Your task to perform on an android device: turn on airplane mode Image 0: 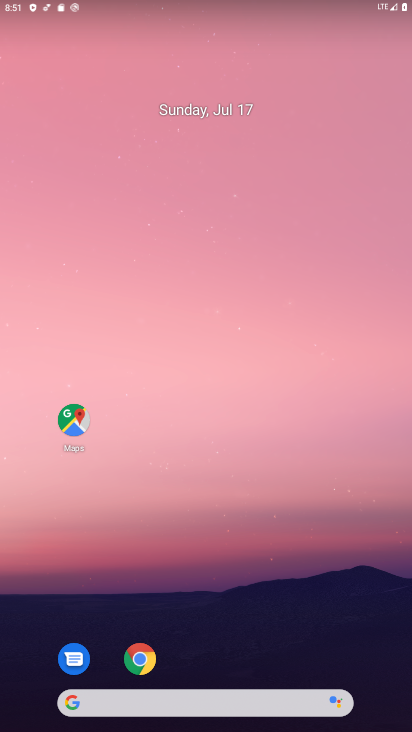
Step 0: drag from (175, 697) to (197, 303)
Your task to perform on an android device: turn on airplane mode Image 1: 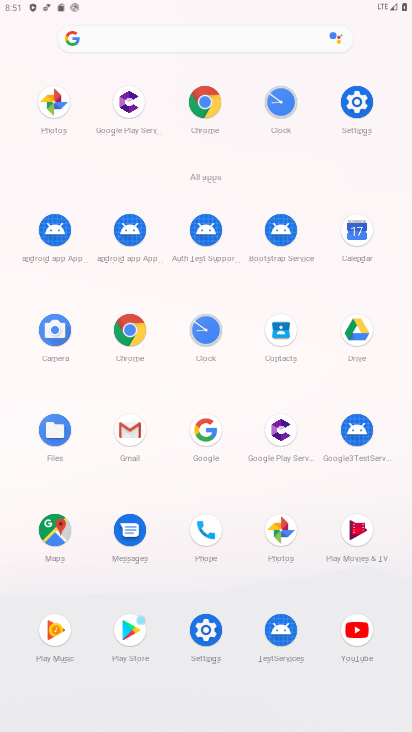
Step 1: click (346, 129)
Your task to perform on an android device: turn on airplane mode Image 2: 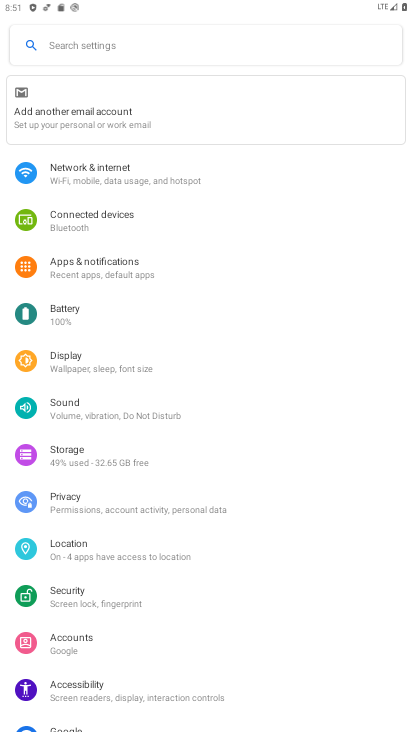
Step 2: click (152, 172)
Your task to perform on an android device: turn on airplane mode Image 3: 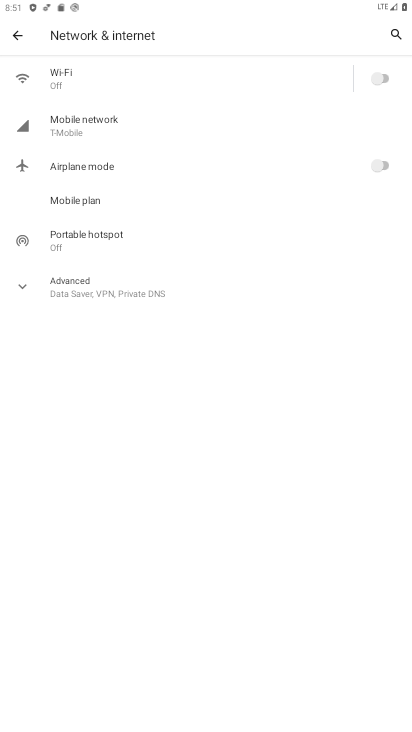
Step 3: click (387, 168)
Your task to perform on an android device: turn on airplane mode Image 4: 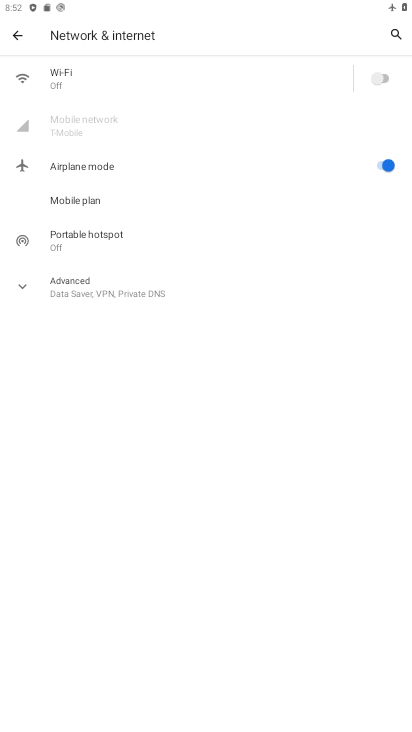
Step 4: task complete